Your task to perform on an android device: snooze an email in the gmail app Image 0: 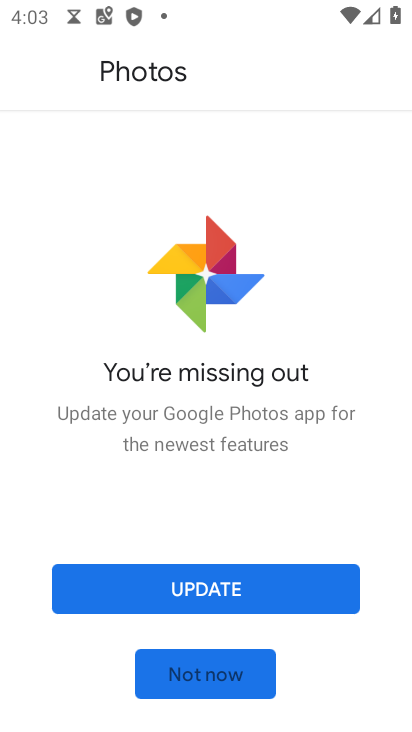
Step 0: press home button
Your task to perform on an android device: snooze an email in the gmail app Image 1: 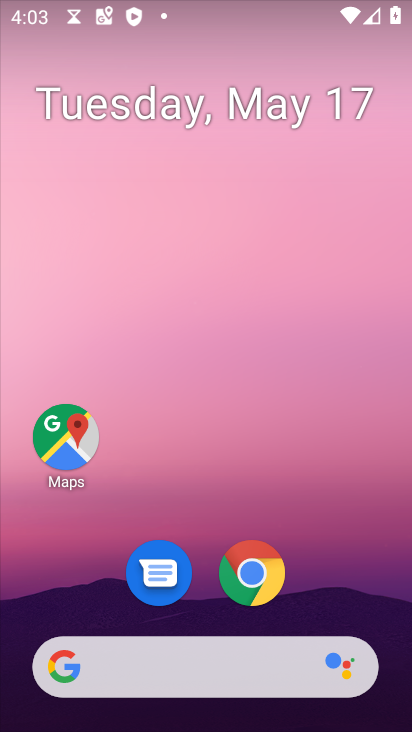
Step 1: drag from (325, 600) to (196, 156)
Your task to perform on an android device: snooze an email in the gmail app Image 2: 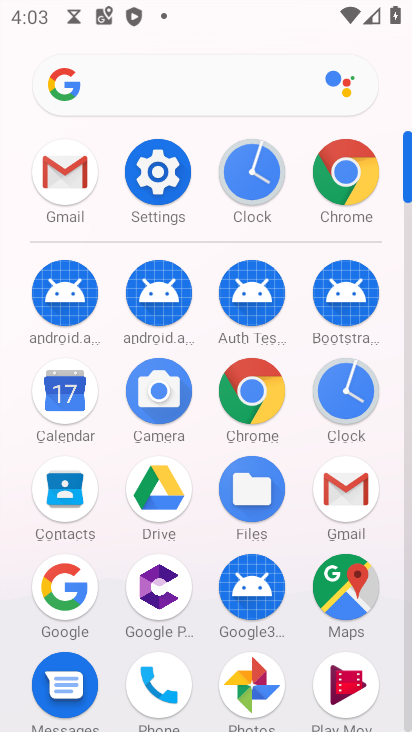
Step 2: click (86, 200)
Your task to perform on an android device: snooze an email in the gmail app Image 3: 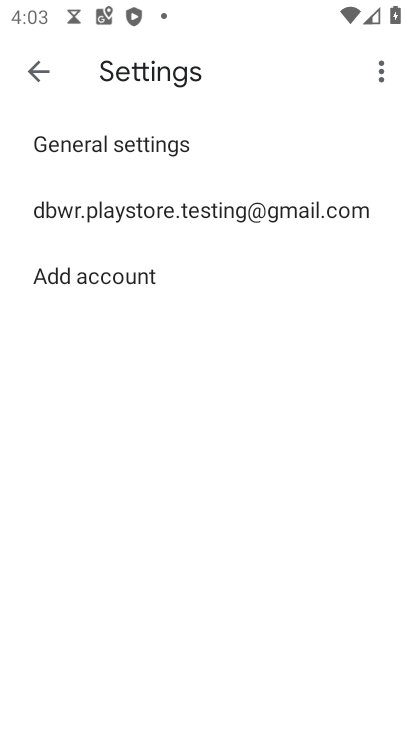
Step 3: click (33, 81)
Your task to perform on an android device: snooze an email in the gmail app Image 4: 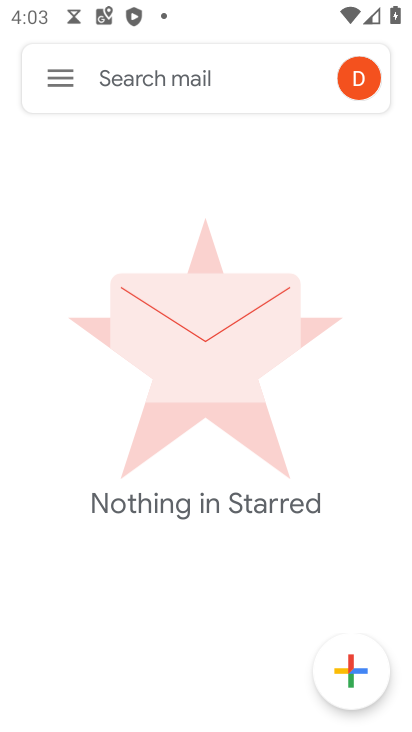
Step 4: click (45, 73)
Your task to perform on an android device: snooze an email in the gmail app Image 5: 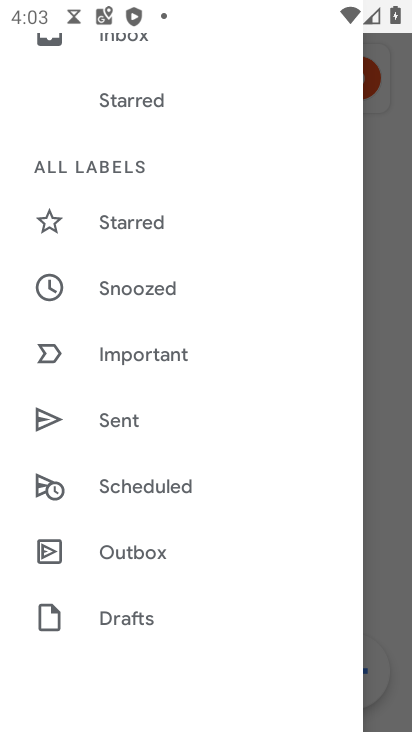
Step 5: drag from (185, 550) to (165, 156)
Your task to perform on an android device: snooze an email in the gmail app Image 6: 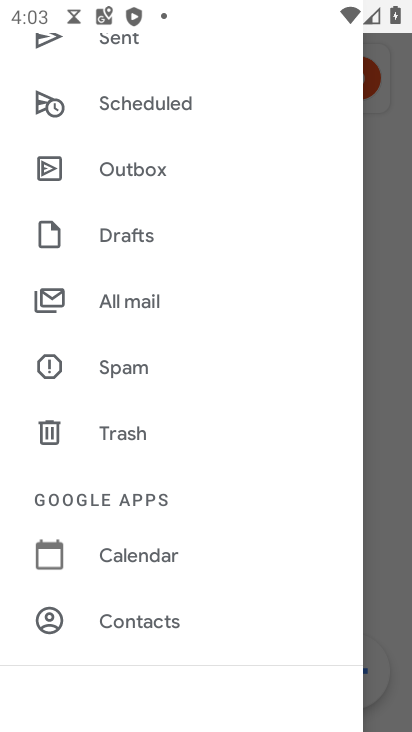
Step 6: click (181, 301)
Your task to perform on an android device: snooze an email in the gmail app Image 7: 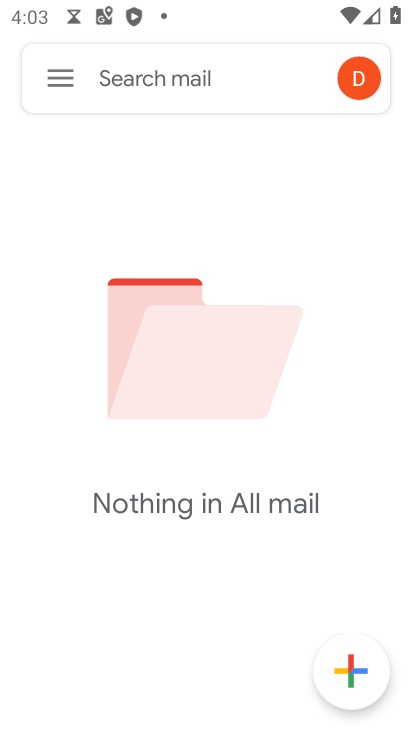
Step 7: task complete